Your task to perform on an android device: Go to CNN.com Image 0: 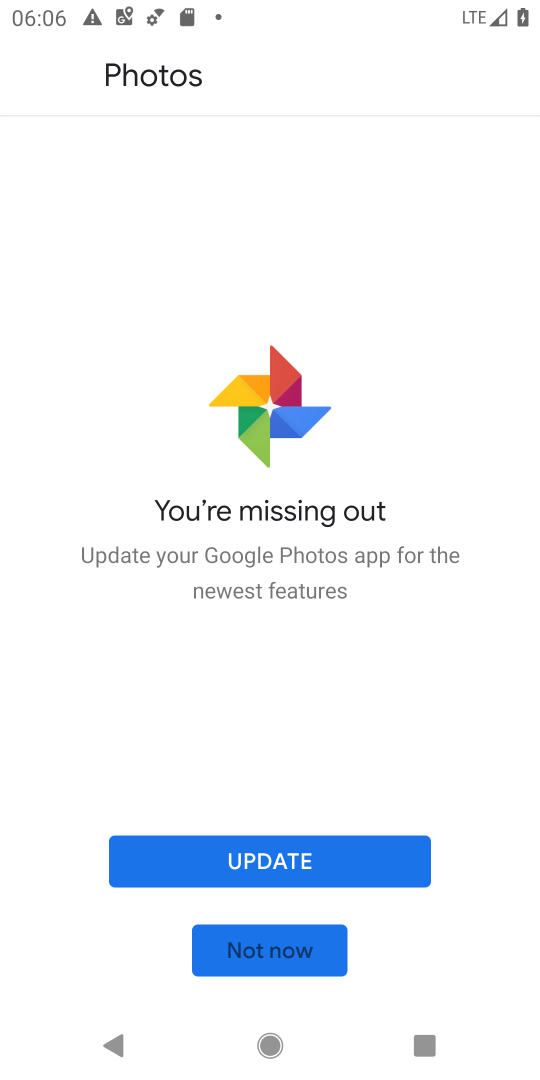
Step 0: press home button
Your task to perform on an android device: Go to CNN.com Image 1: 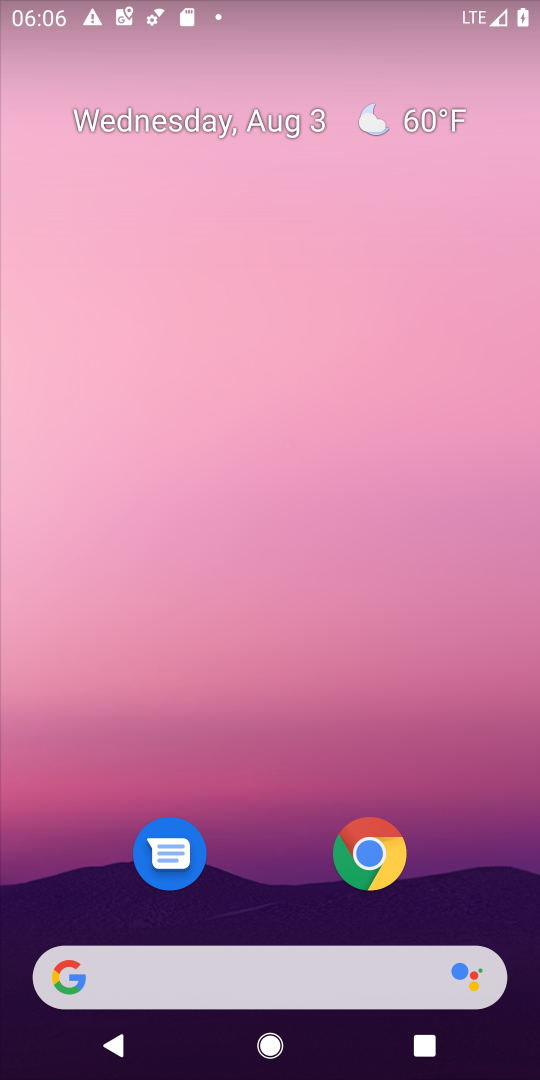
Step 1: click (369, 853)
Your task to perform on an android device: Go to CNN.com Image 2: 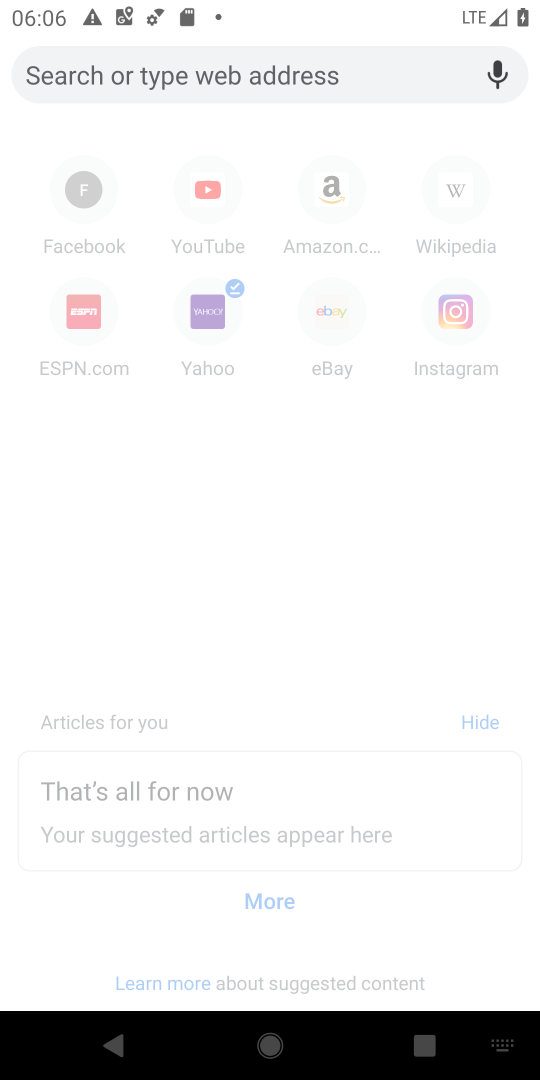
Step 2: type "CNN.com"
Your task to perform on an android device: Go to CNN.com Image 3: 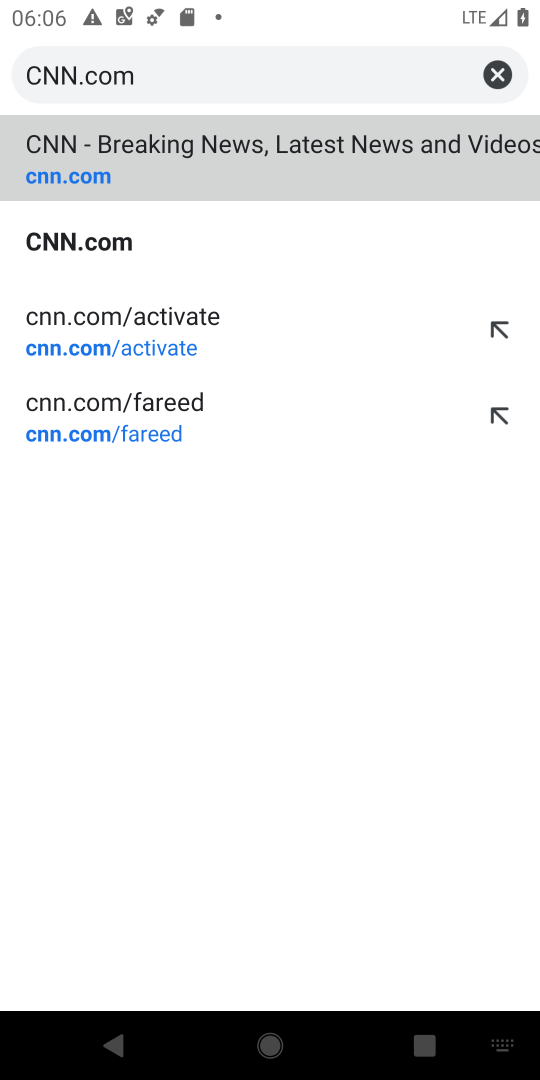
Step 3: click (124, 155)
Your task to perform on an android device: Go to CNN.com Image 4: 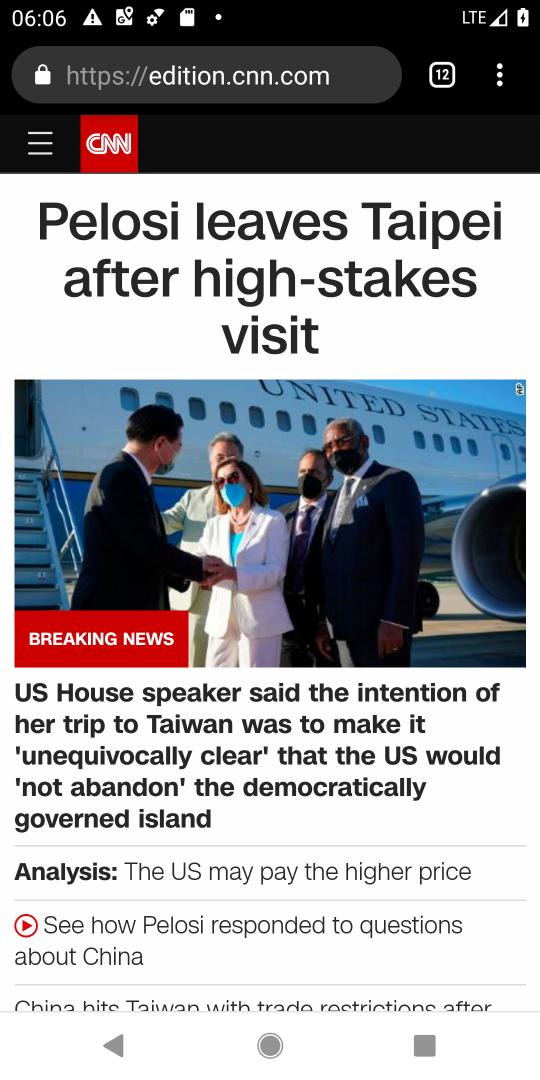
Step 4: task complete